Your task to perform on an android device: Add "alienware aurora" to the cart on amazon.com Image 0: 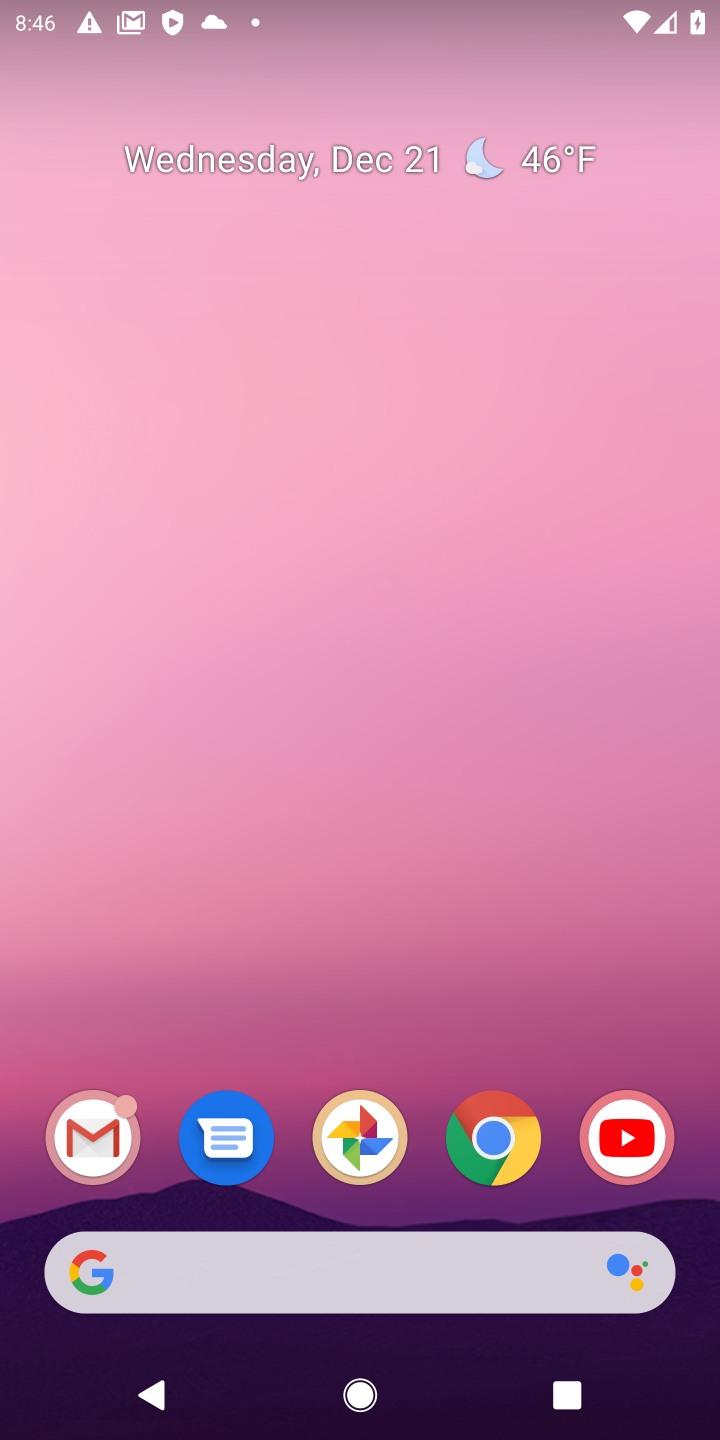
Step 0: click (492, 1145)
Your task to perform on an android device: Add "alienware aurora" to the cart on amazon.com Image 1: 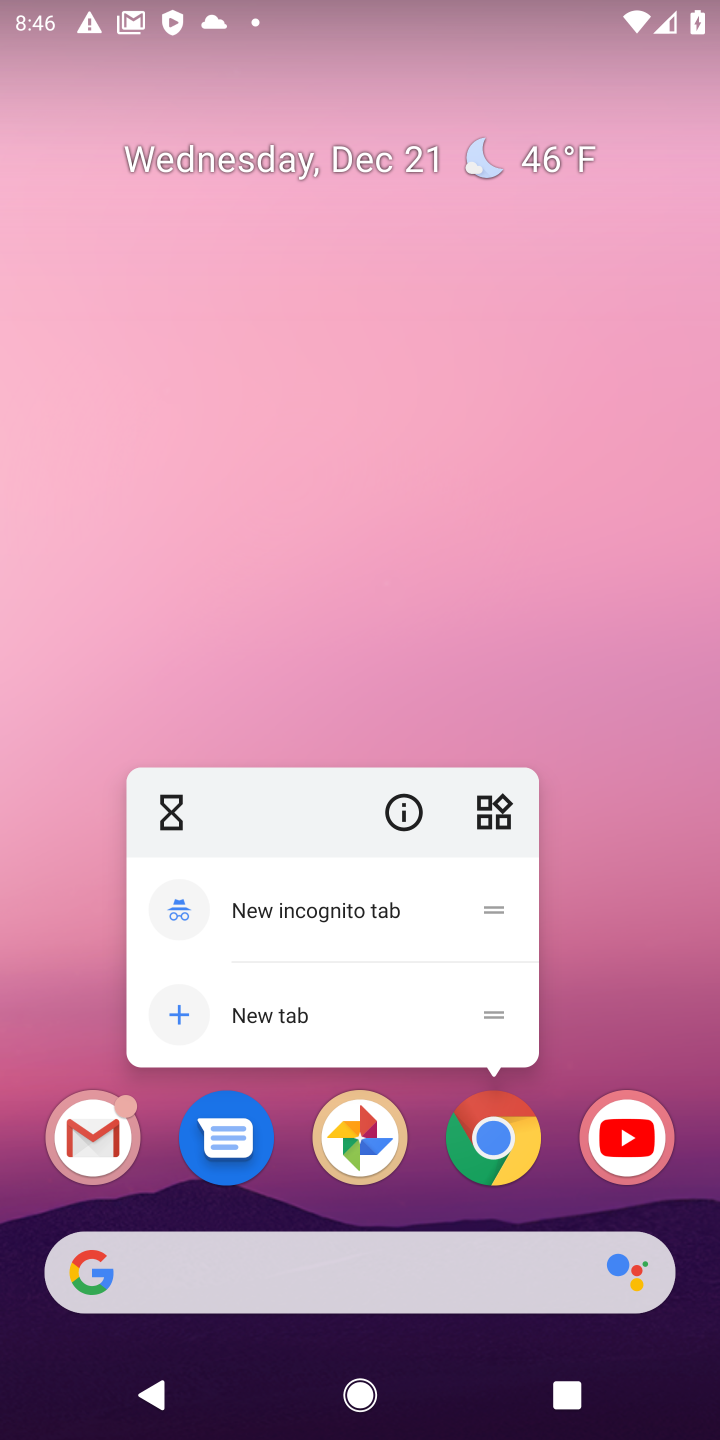
Step 1: click (492, 1145)
Your task to perform on an android device: Add "alienware aurora" to the cart on amazon.com Image 2: 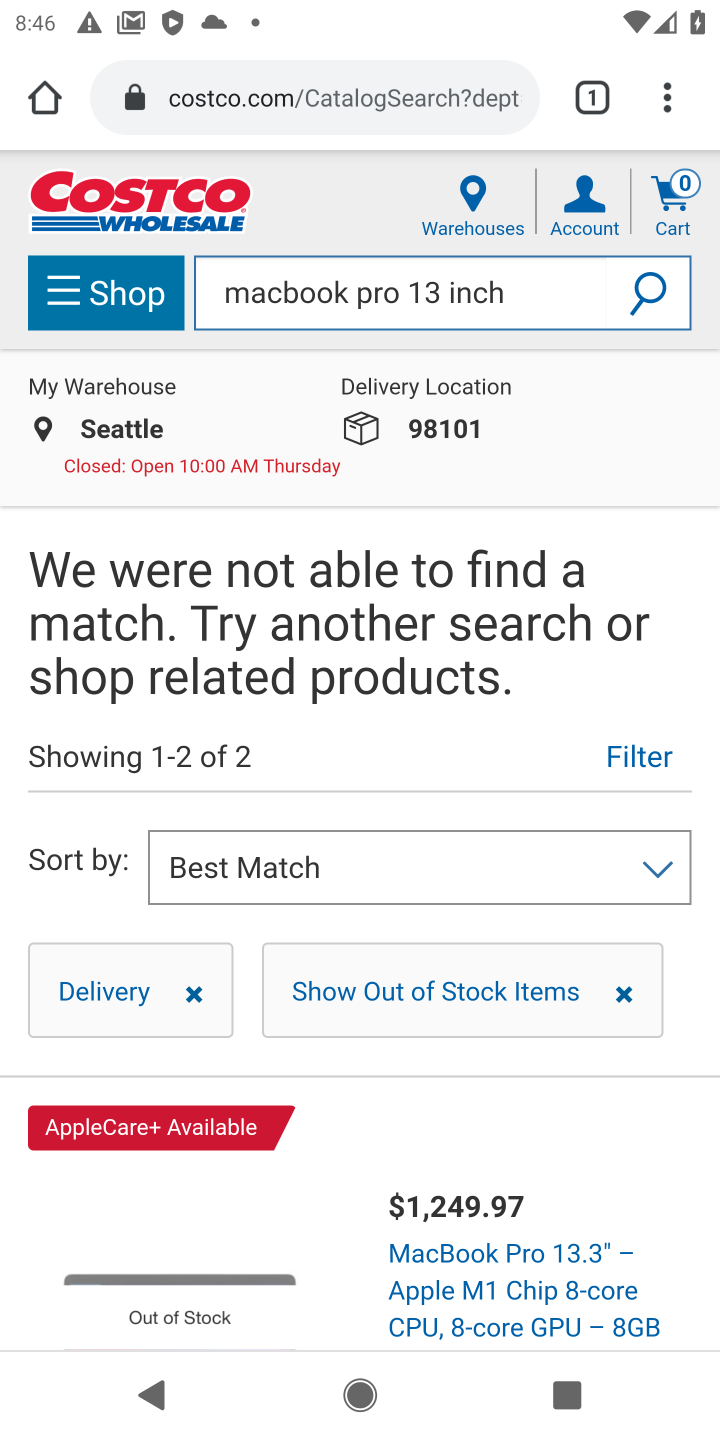
Step 2: click (243, 110)
Your task to perform on an android device: Add "alienware aurora" to the cart on amazon.com Image 3: 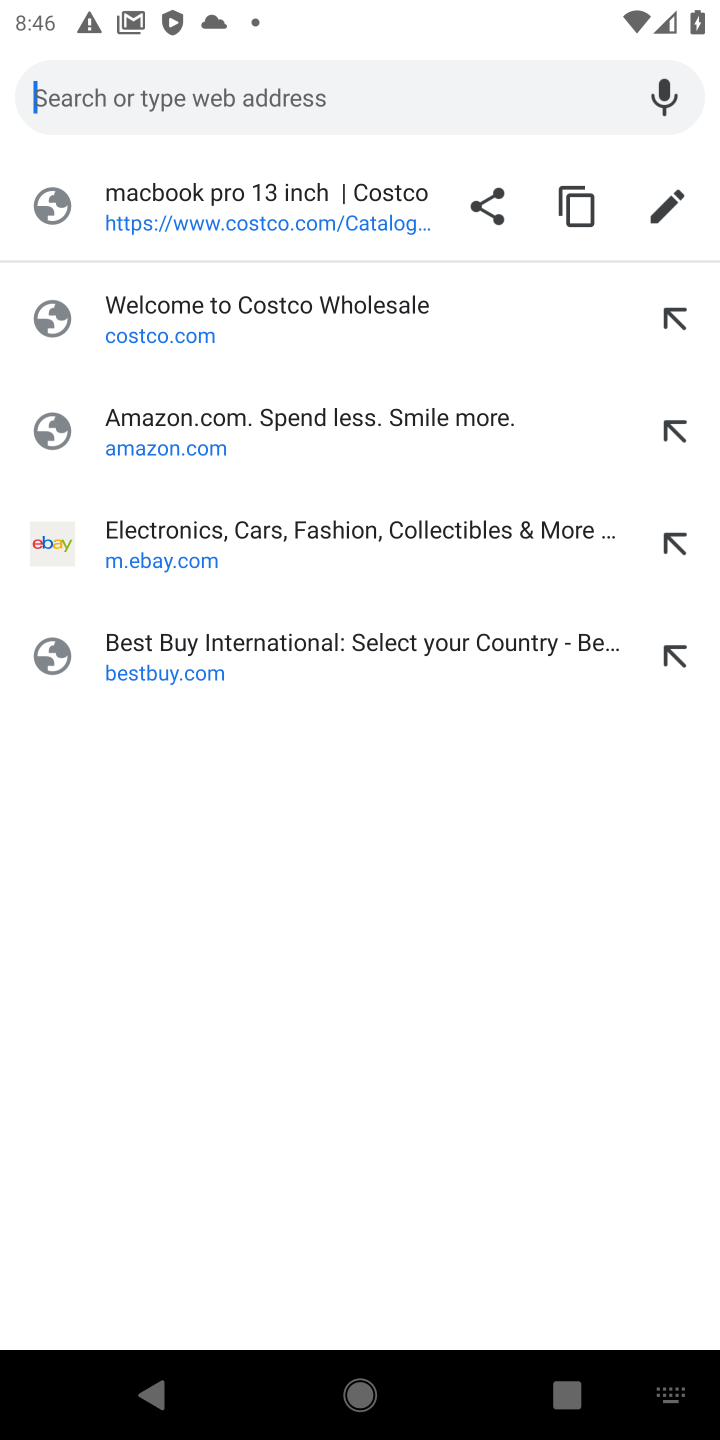
Step 3: click (161, 433)
Your task to perform on an android device: Add "alienware aurora" to the cart on amazon.com Image 4: 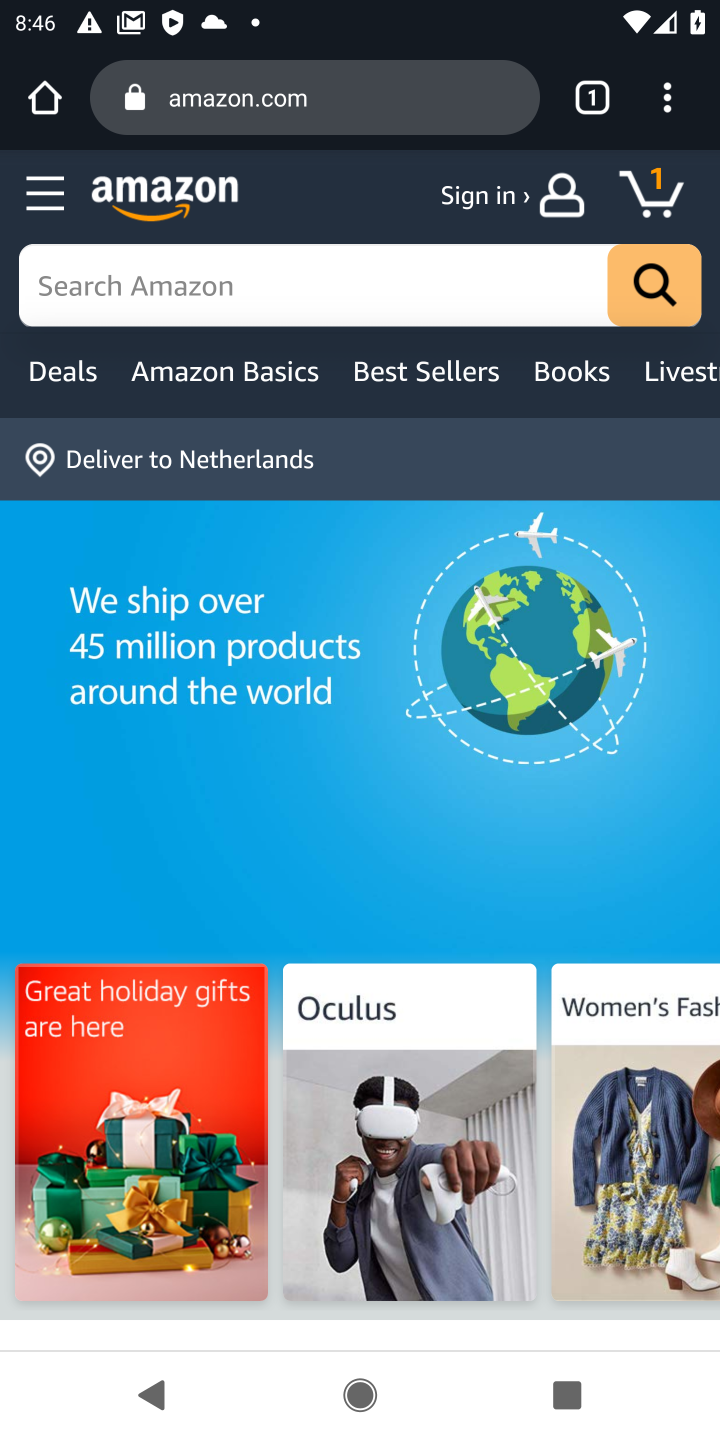
Step 4: click (128, 270)
Your task to perform on an android device: Add "alienware aurora" to the cart on amazon.com Image 5: 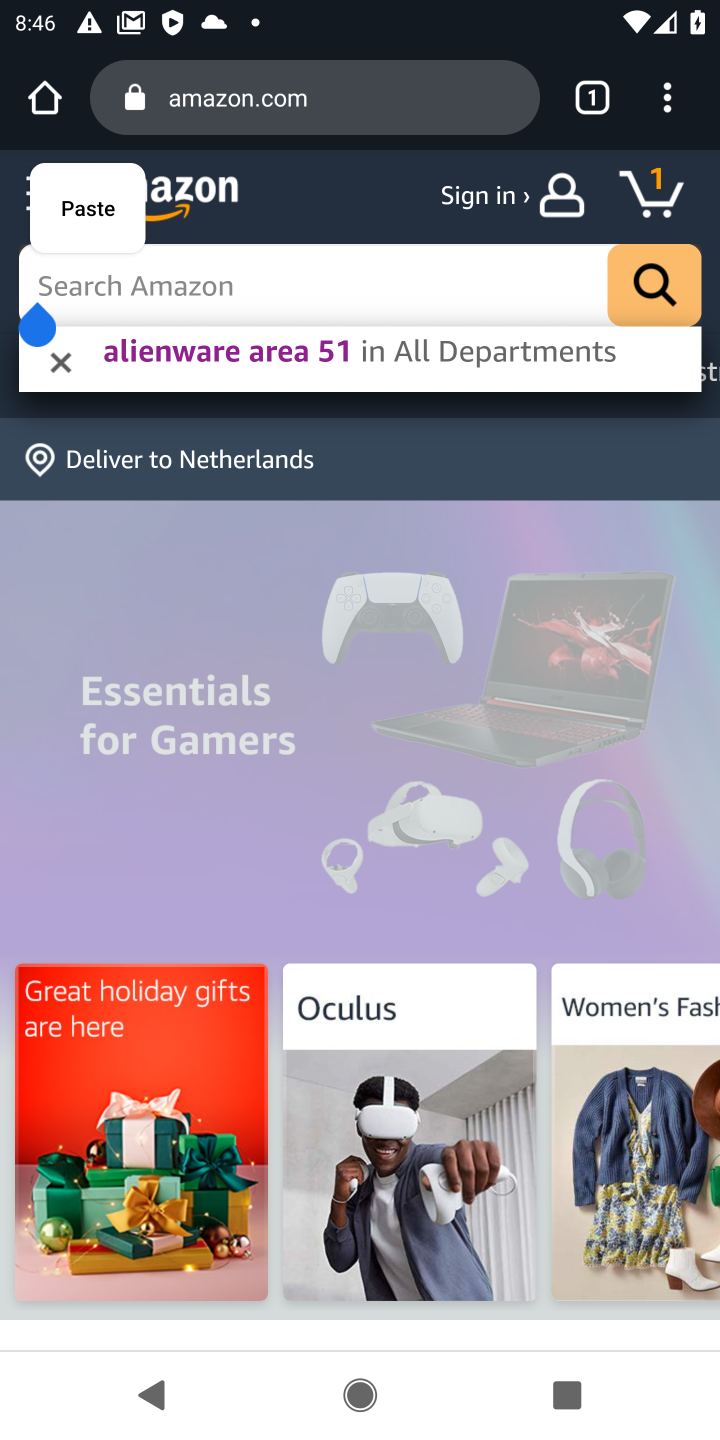
Step 5: type "alienware aurora"
Your task to perform on an android device: Add "alienware aurora" to the cart on amazon.com Image 6: 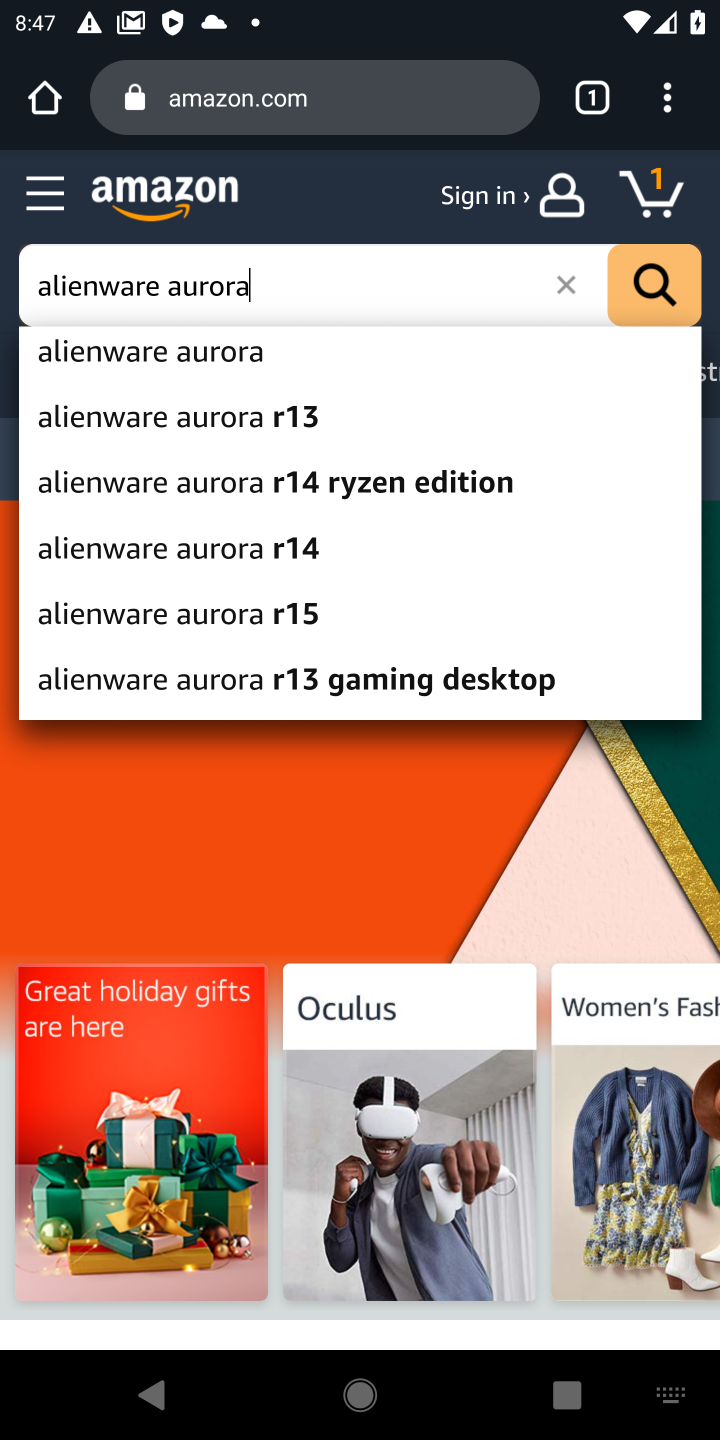
Step 6: click (121, 367)
Your task to perform on an android device: Add "alienware aurora" to the cart on amazon.com Image 7: 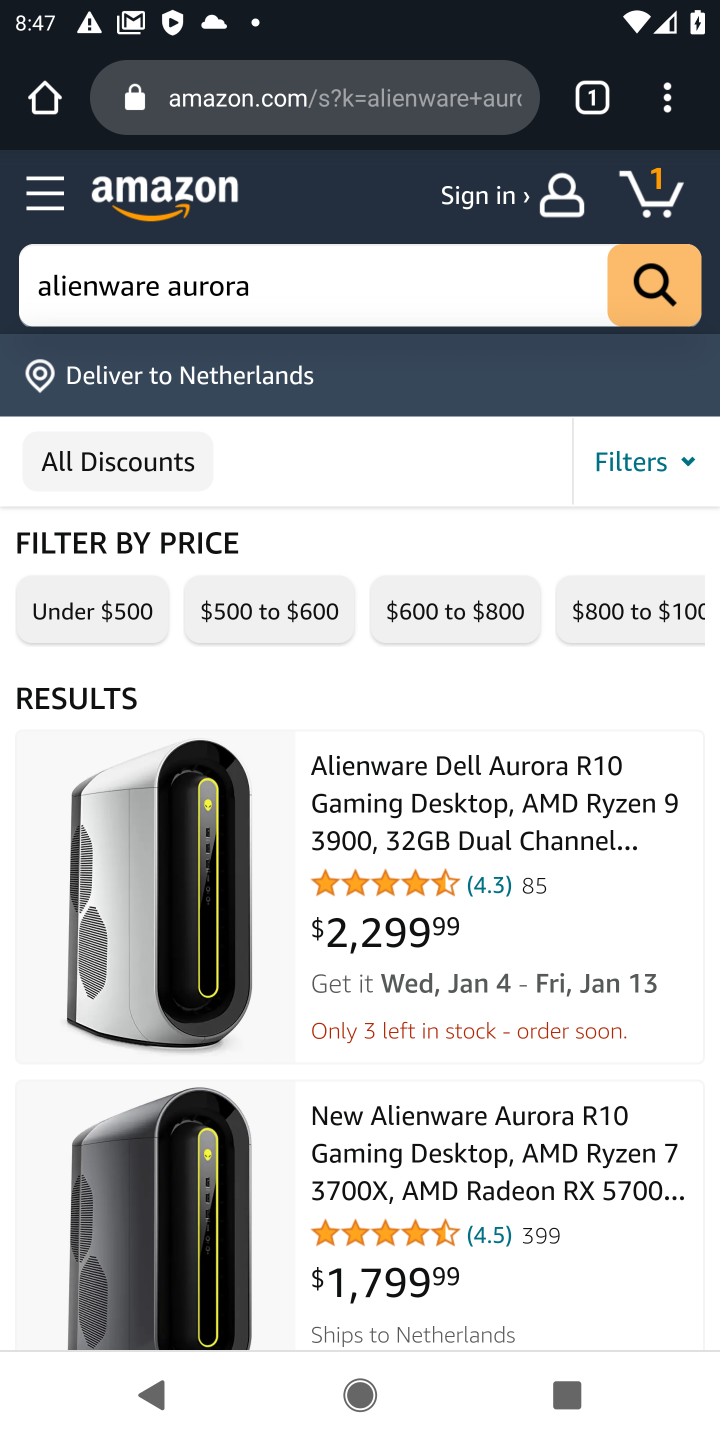
Step 7: click (403, 818)
Your task to perform on an android device: Add "alienware aurora" to the cart on amazon.com Image 8: 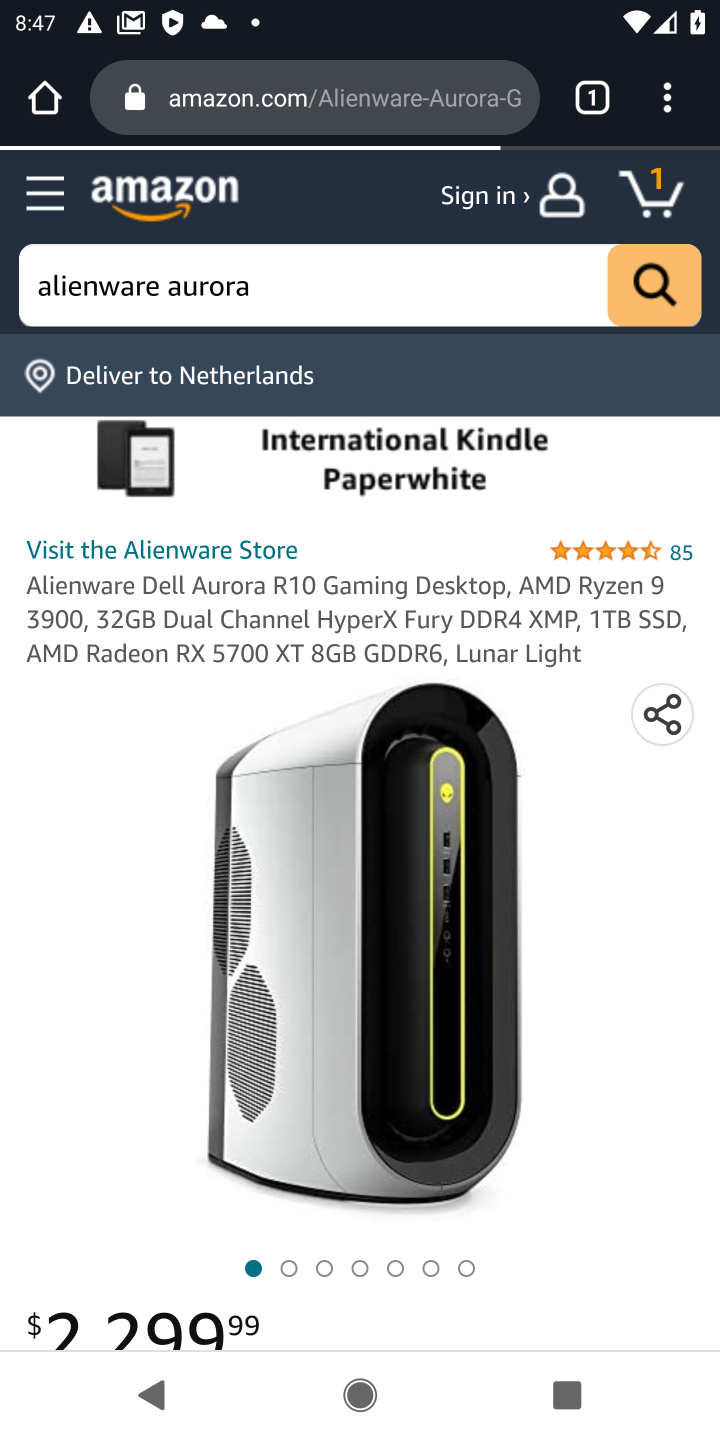
Step 8: drag from (286, 918) to (315, 387)
Your task to perform on an android device: Add "alienware aurora" to the cart on amazon.com Image 9: 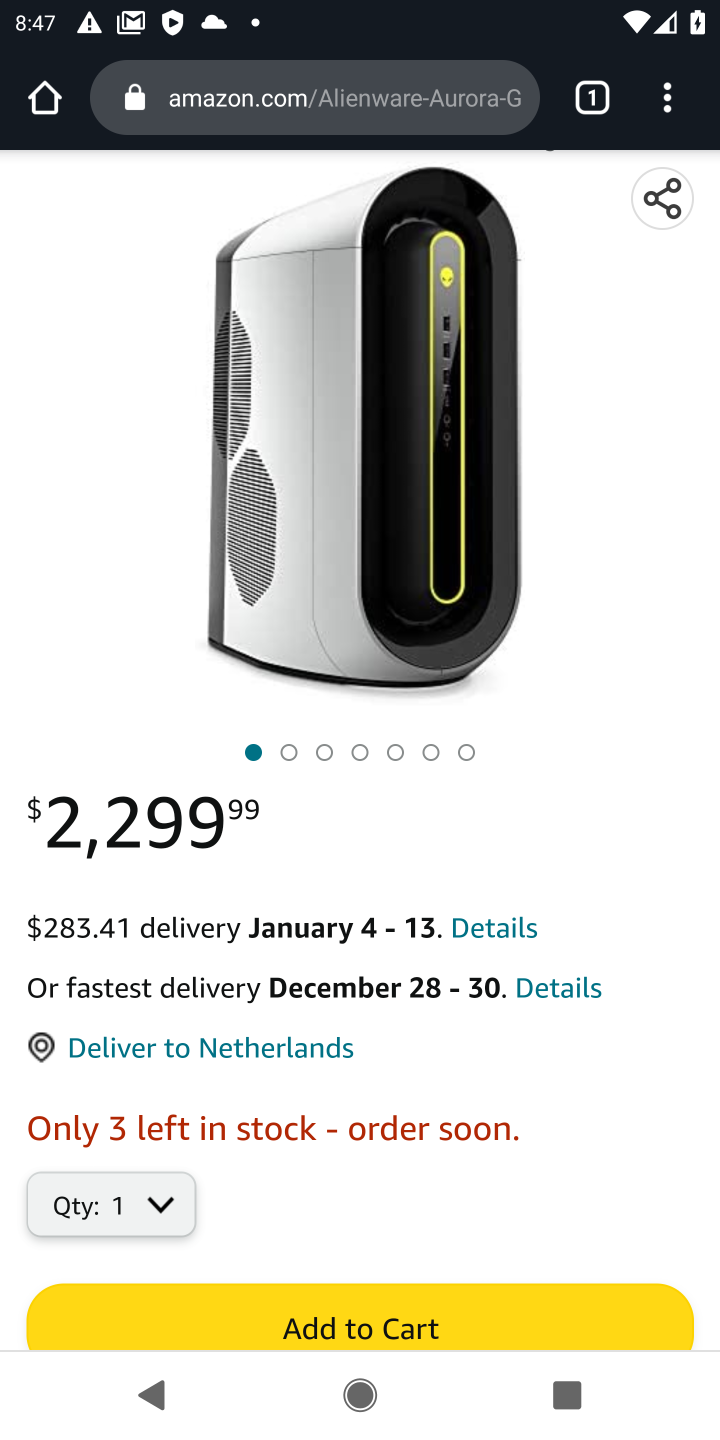
Step 9: drag from (326, 1014) to (347, 656)
Your task to perform on an android device: Add "alienware aurora" to the cart on amazon.com Image 10: 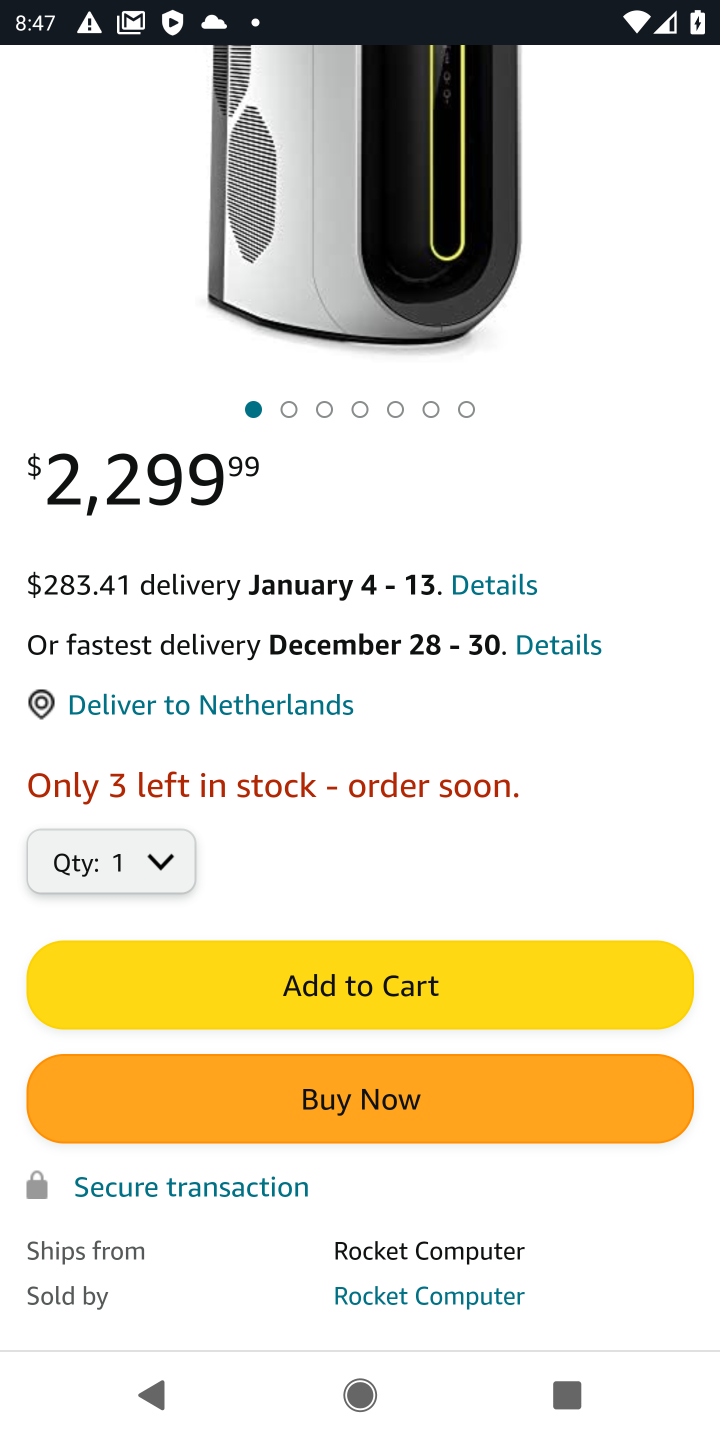
Step 10: click (333, 985)
Your task to perform on an android device: Add "alienware aurora" to the cart on amazon.com Image 11: 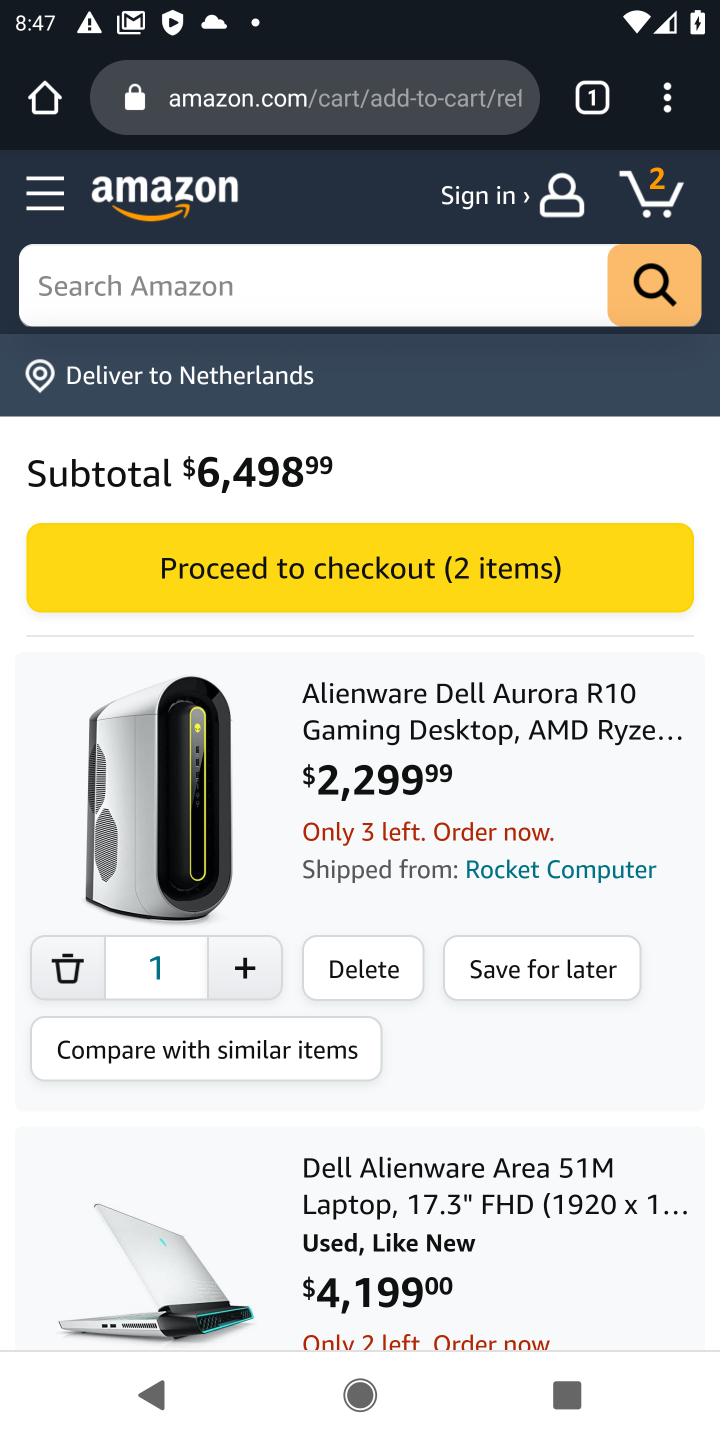
Step 11: task complete